Your task to perform on an android device: turn smart compose on in the gmail app Image 0: 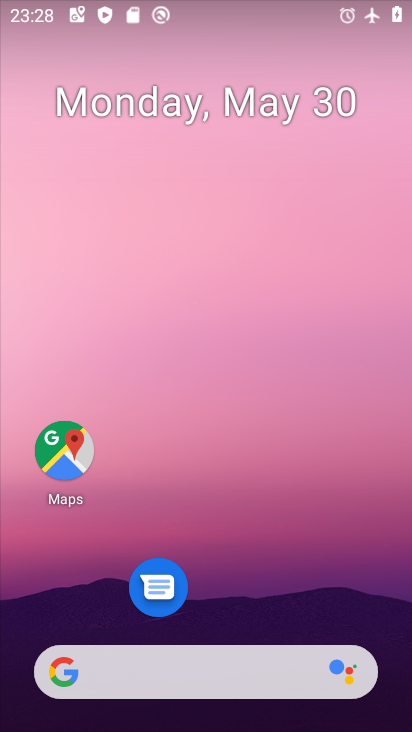
Step 0: drag from (255, 622) to (177, 96)
Your task to perform on an android device: turn smart compose on in the gmail app Image 1: 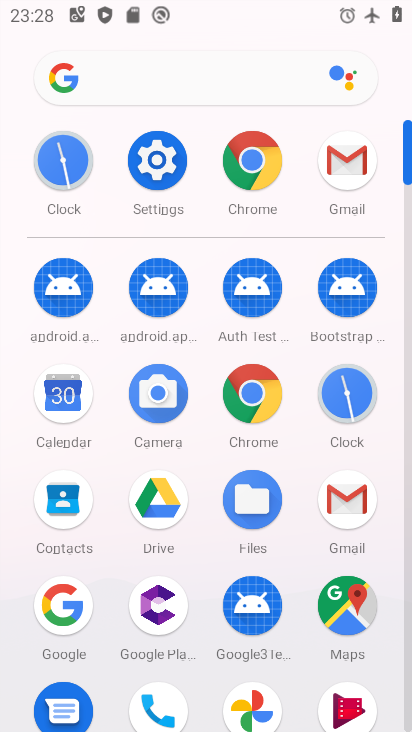
Step 1: click (354, 514)
Your task to perform on an android device: turn smart compose on in the gmail app Image 2: 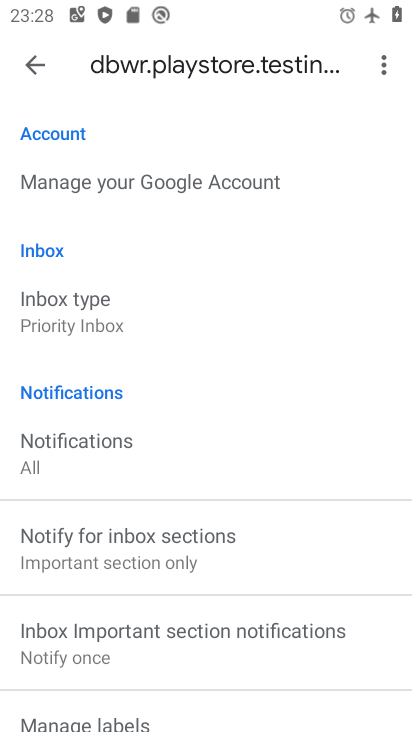
Step 2: task complete